Your task to perform on an android device: Go to battery settings Image 0: 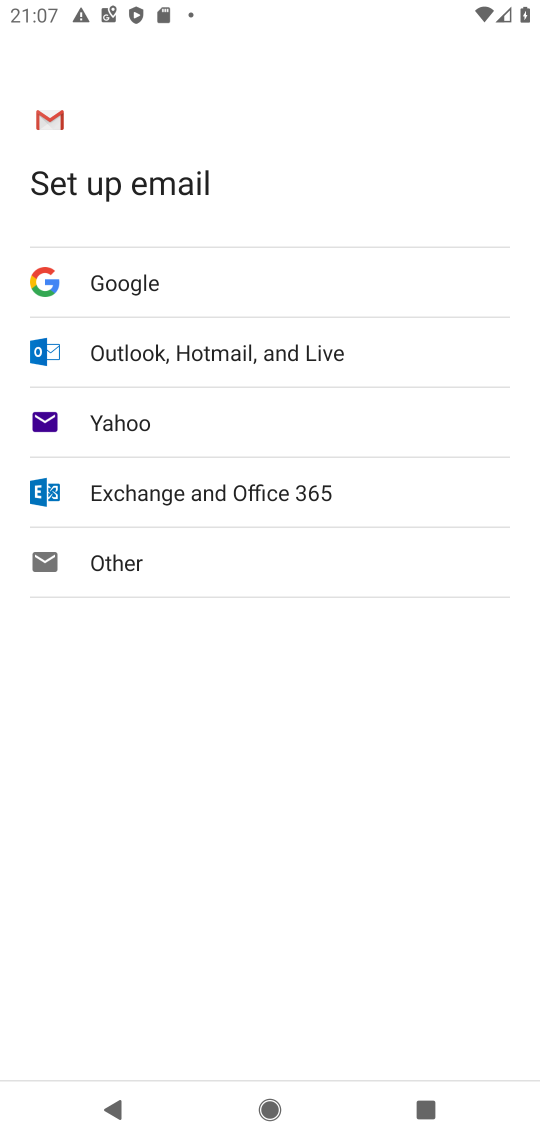
Step 0: press home button
Your task to perform on an android device: Go to battery settings Image 1: 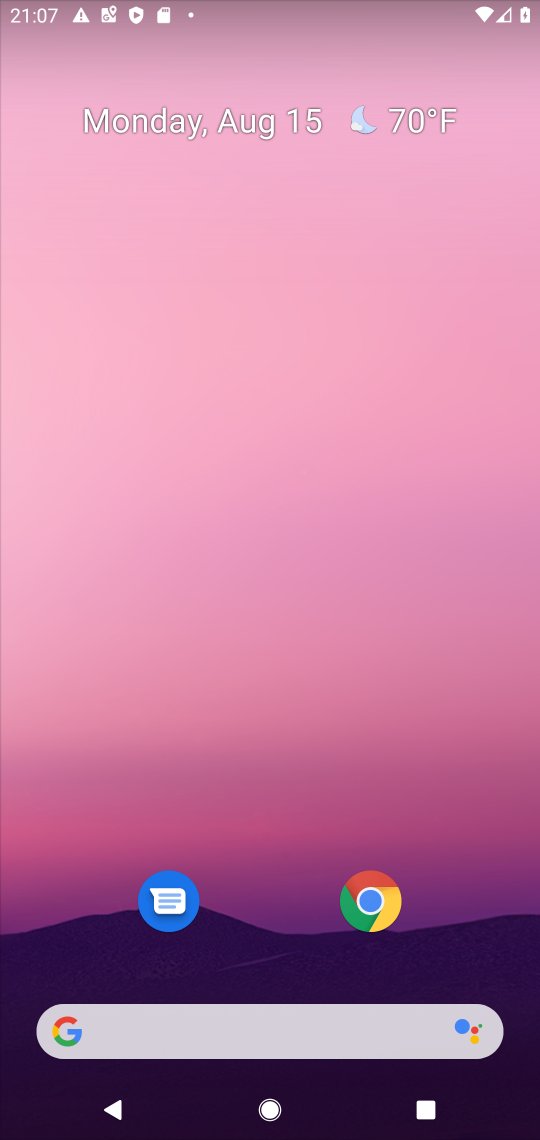
Step 1: drag from (256, 559) to (279, 215)
Your task to perform on an android device: Go to battery settings Image 2: 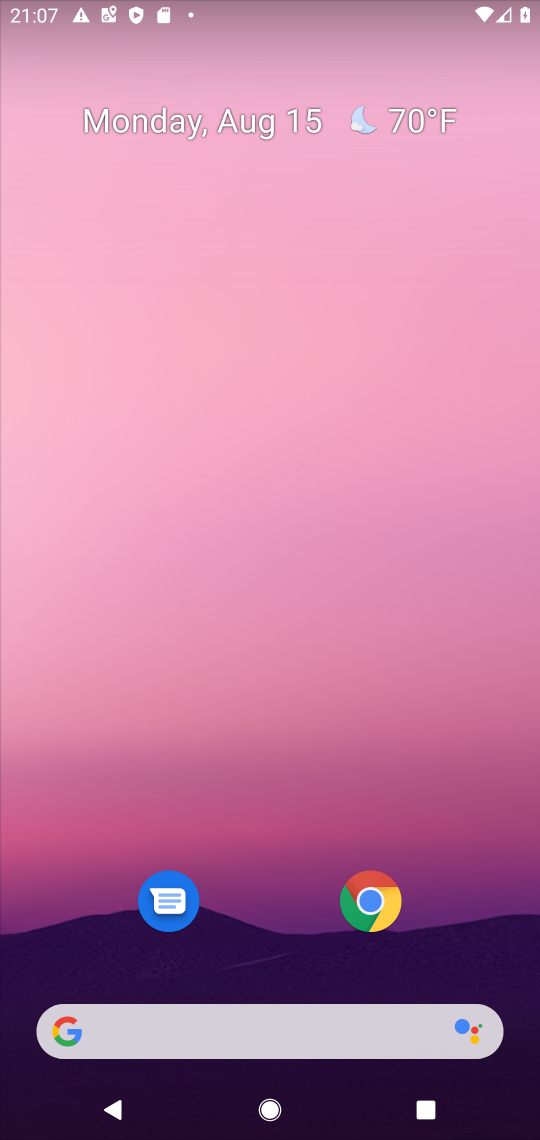
Step 2: drag from (245, 753) to (324, 55)
Your task to perform on an android device: Go to battery settings Image 3: 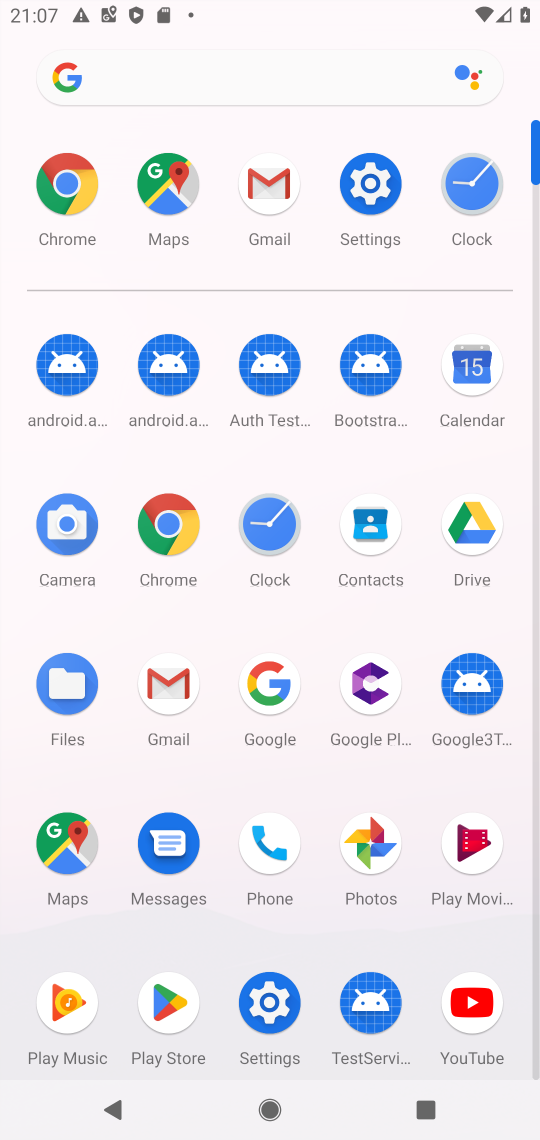
Step 3: click (278, 1004)
Your task to perform on an android device: Go to battery settings Image 4: 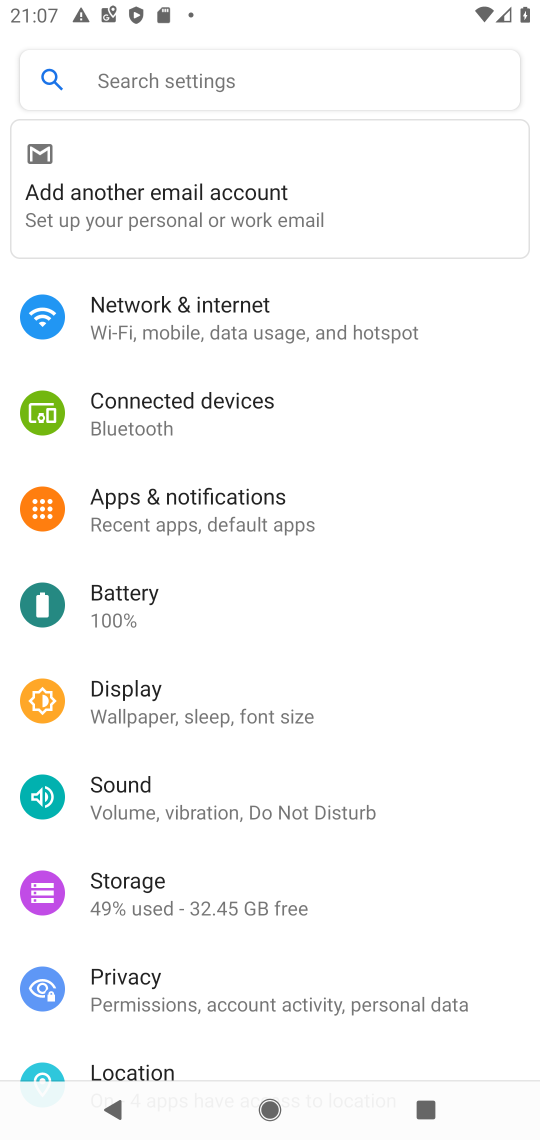
Step 4: click (173, 618)
Your task to perform on an android device: Go to battery settings Image 5: 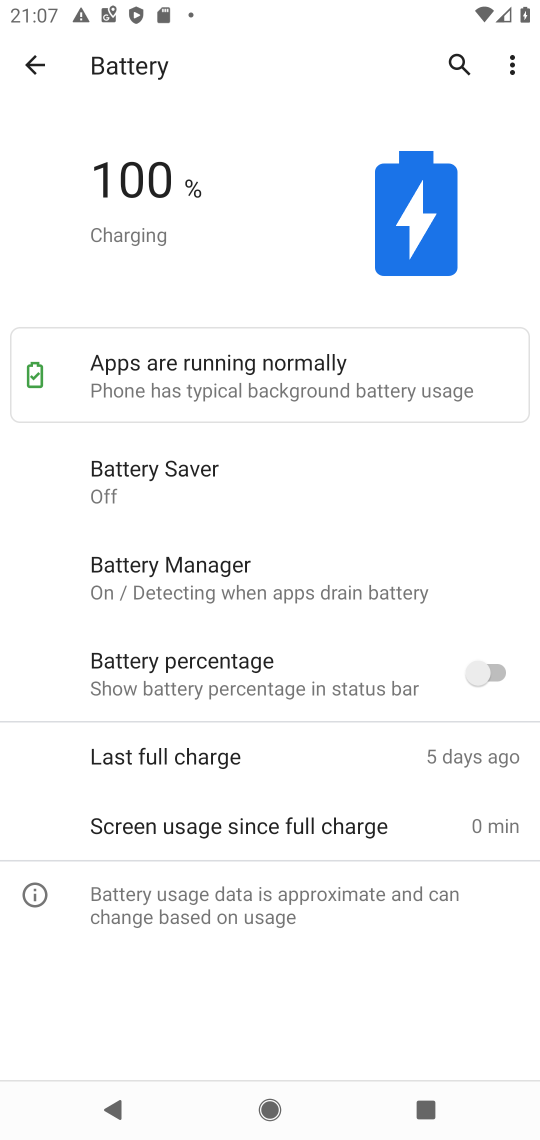
Step 5: click (517, 66)
Your task to perform on an android device: Go to battery settings Image 6: 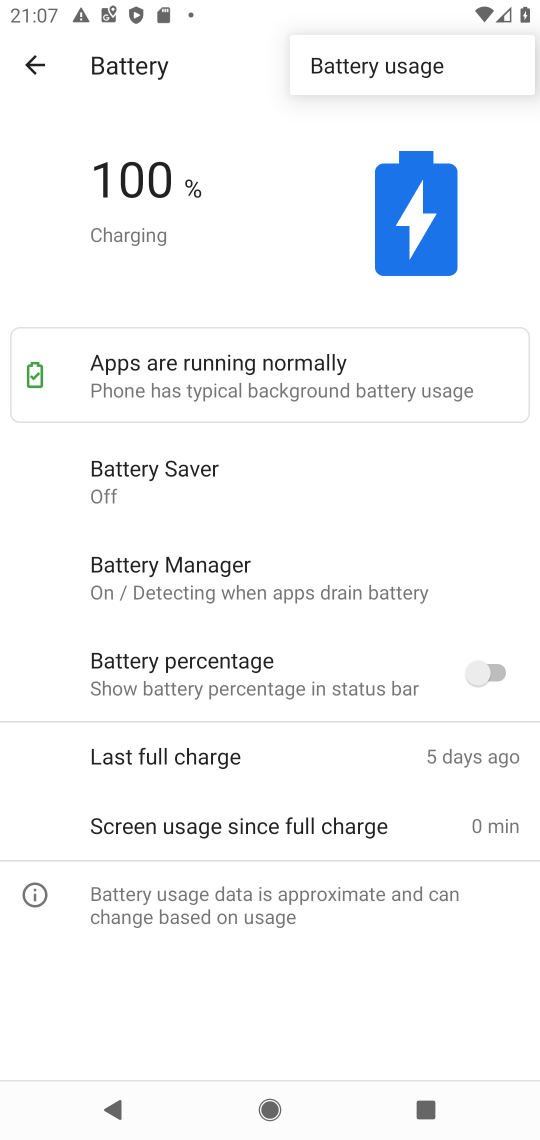
Step 6: task complete